Your task to perform on an android device: check storage Image 0: 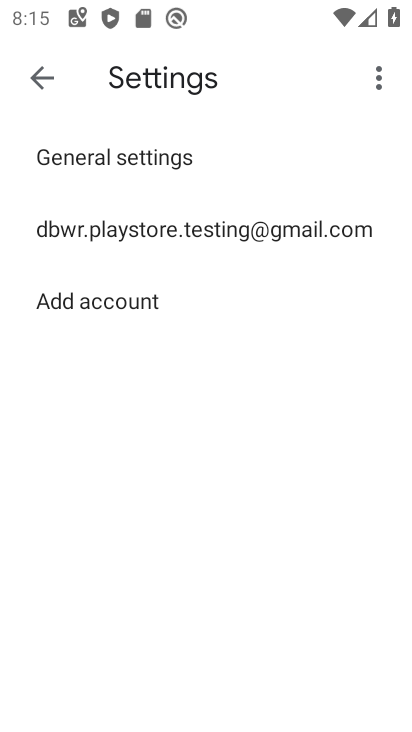
Step 0: press home button
Your task to perform on an android device: check storage Image 1: 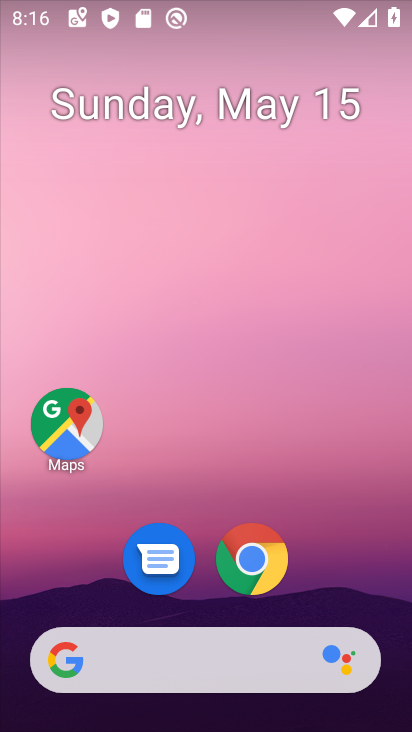
Step 1: drag from (353, 562) to (277, 191)
Your task to perform on an android device: check storage Image 2: 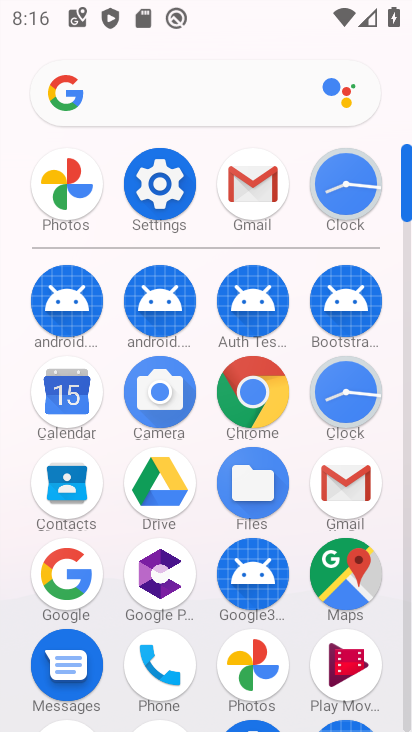
Step 2: click (152, 225)
Your task to perform on an android device: check storage Image 3: 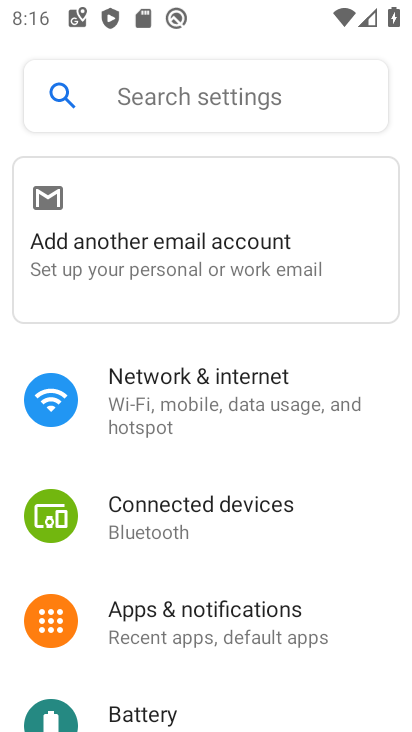
Step 3: drag from (175, 523) to (134, 95)
Your task to perform on an android device: check storage Image 4: 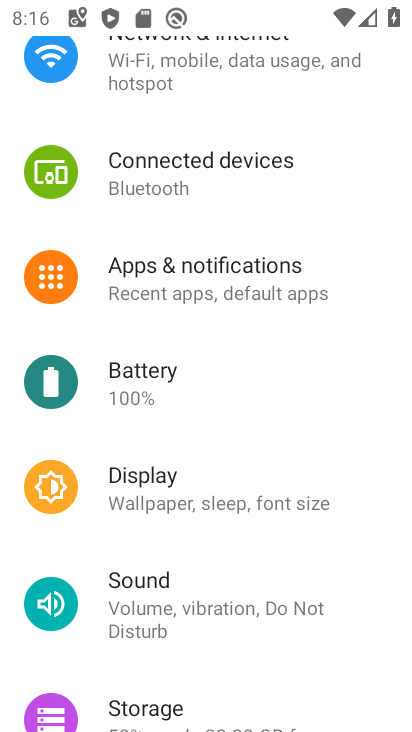
Step 4: drag from (171, 544) to (165, 425)
Your task to perform on an android device: check storage Image 5: 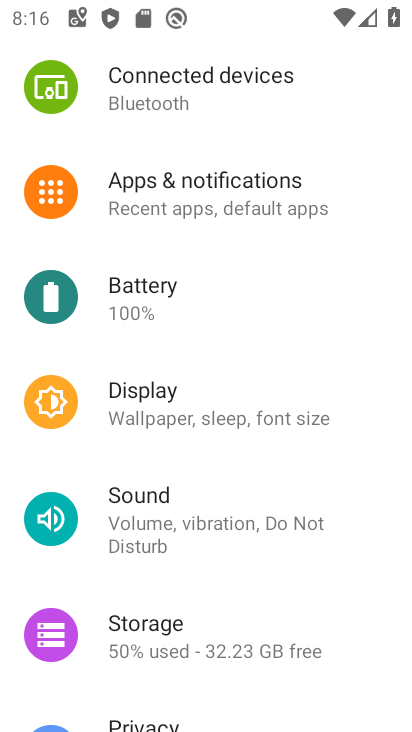
Step 5: click (198, 613)
Your task to perform on an android device: check storage Image 6: 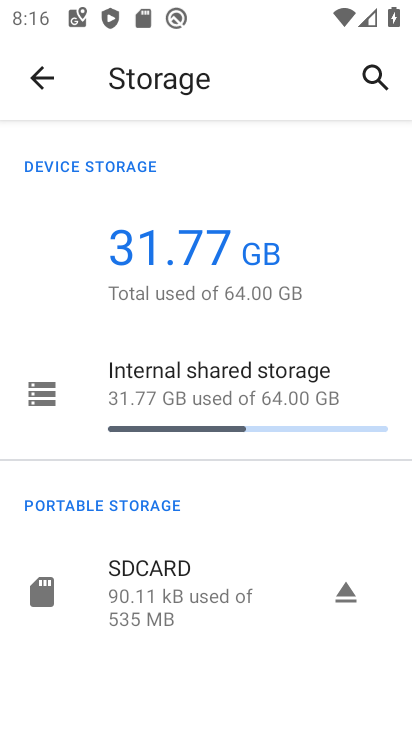
Step 6: task complete